Your task to perform on an android device: turn on wifi Image 0: 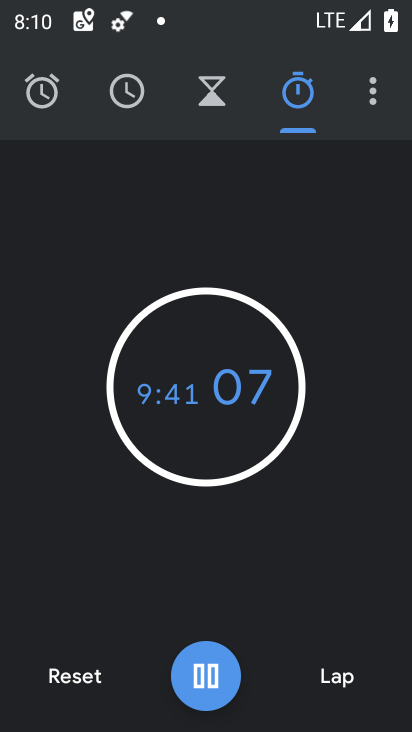
Step 0: click (67, 676)
Your task to perform on an android device: turn on wifi Image 1: 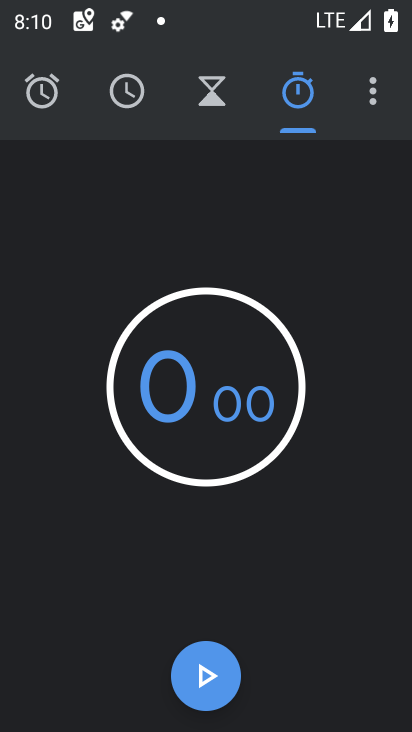
Step 1: press home button
Your task to perform on an android device: turn on wifi Image 2: 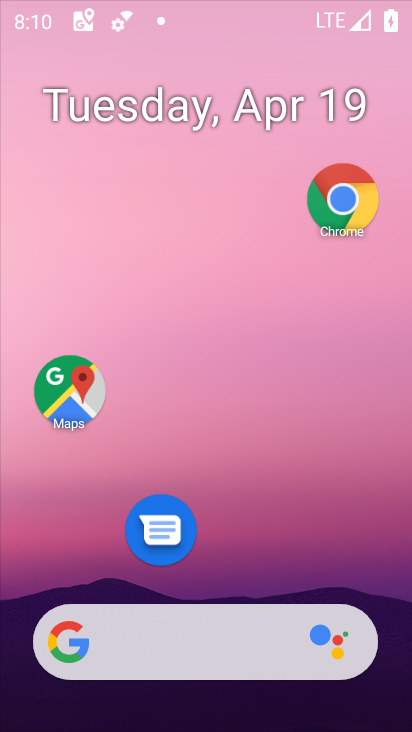
Step 2: drag from (203, 481) to (286, 277)
Your task to perform on an android device: turn on wifi Image 3: 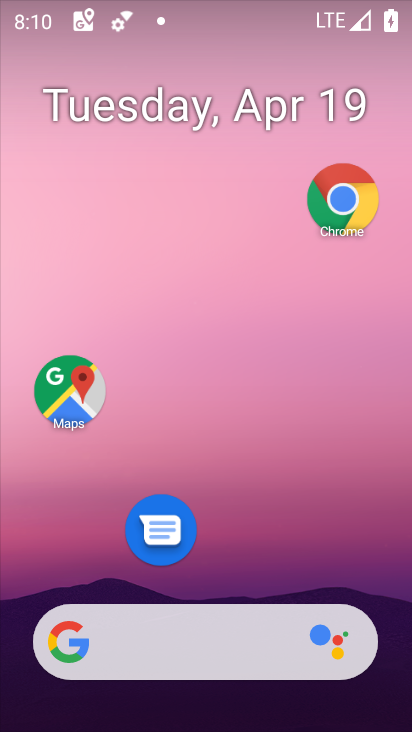
Step 3: drag from (231, 503) to (332, 113)
Your task to perform on an android device: turn on wifi Image 4: 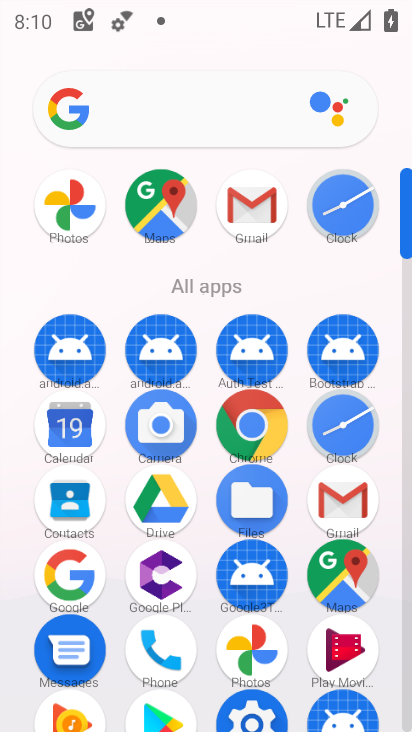
Step 4: click (248, 710)
Your task to perform on an android device: turn on wifi Image 5: 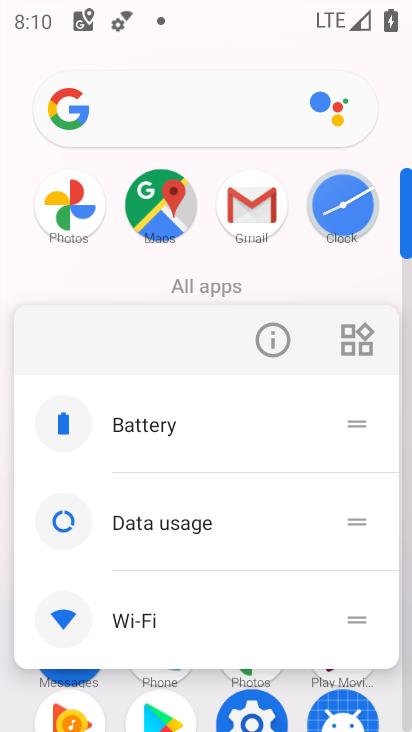
Step 5: click (269, 337)
Your task to perform on an android device: turn on wifi Image 6: 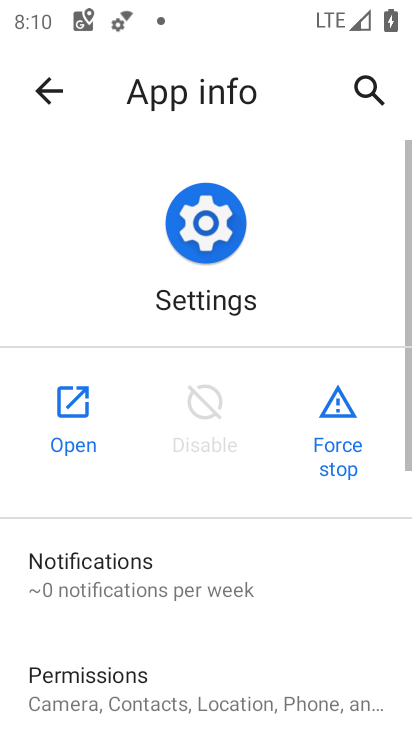
Step 6: click (78, 403)
Your task to perform on an android device: turn on wifi Image 7: 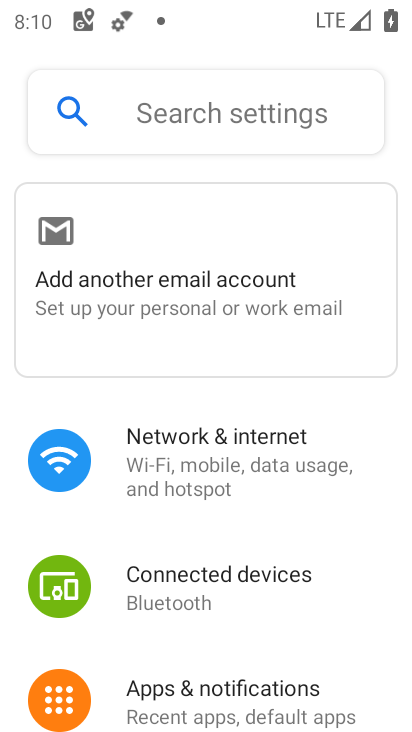
Step 7: click (199, 468)
Your task to perform on an android device: turn on wifi Image 8: 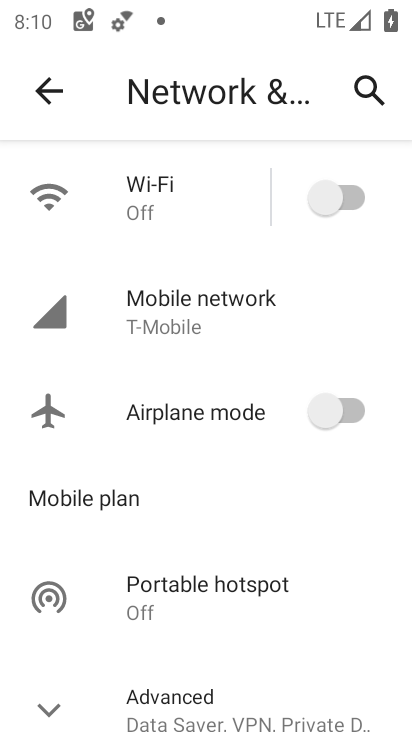
Step 8: click (225, 216)
Your task to perform on an android device: turn on wifi Image 9: 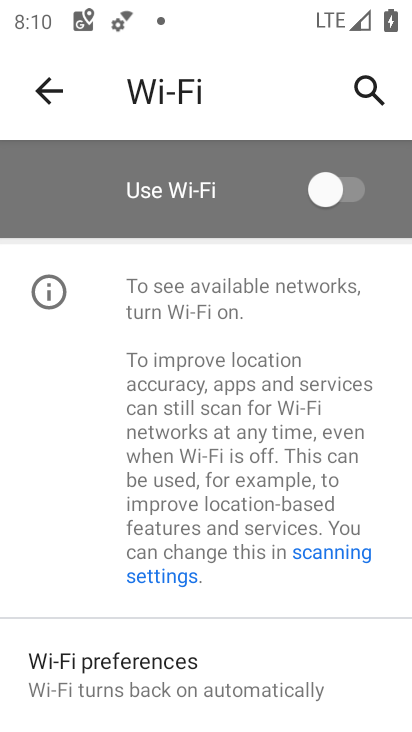
Step 9: click (401, 191)
Your task to perform on an android device: turn on wifi Image 10: 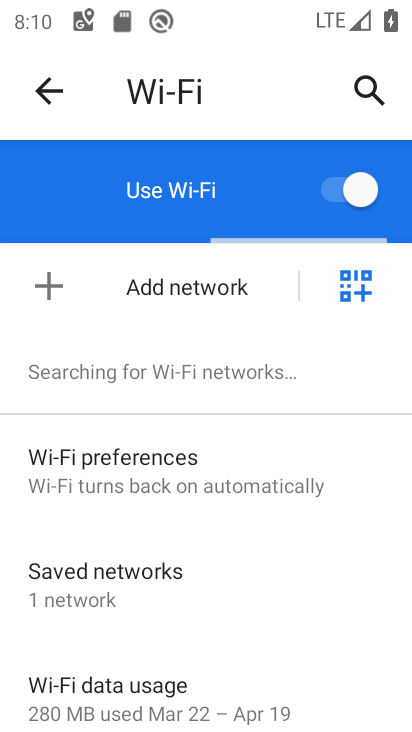
Step 10: task complete